Your task to perform on an android device: turn notification dots on Image 0: 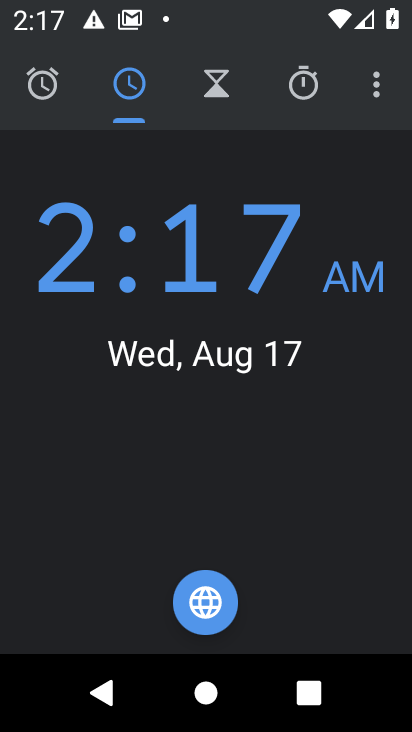
Step 0: task complete